Your task to perform on an android device: Search for Mexican restaurants on Maps Image 0: 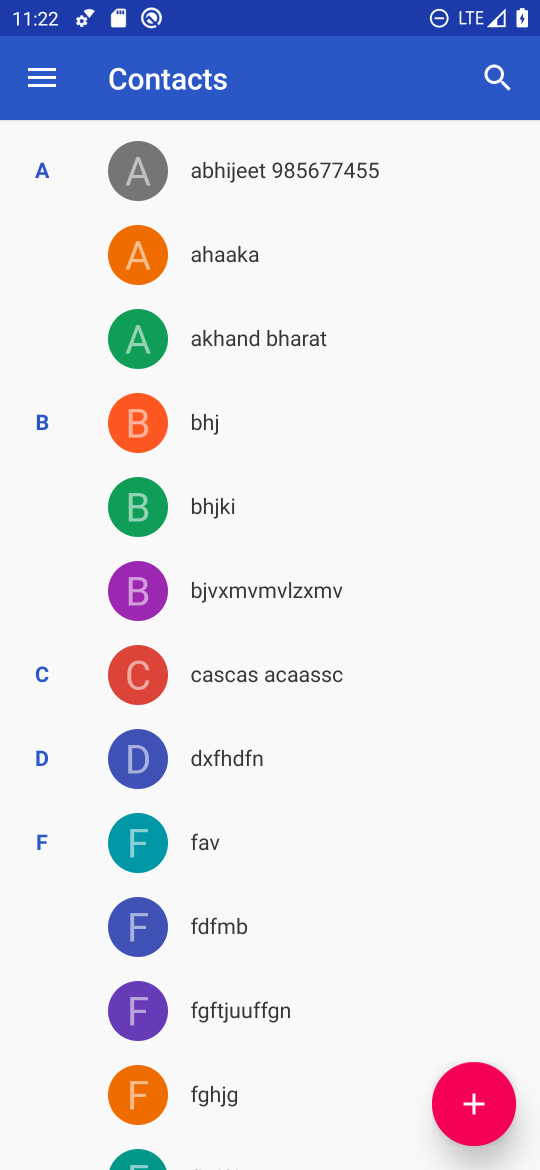
Step 0: press home button
Your task to perform on an android device: Search for Mexican restaurants on Maps Image 1: 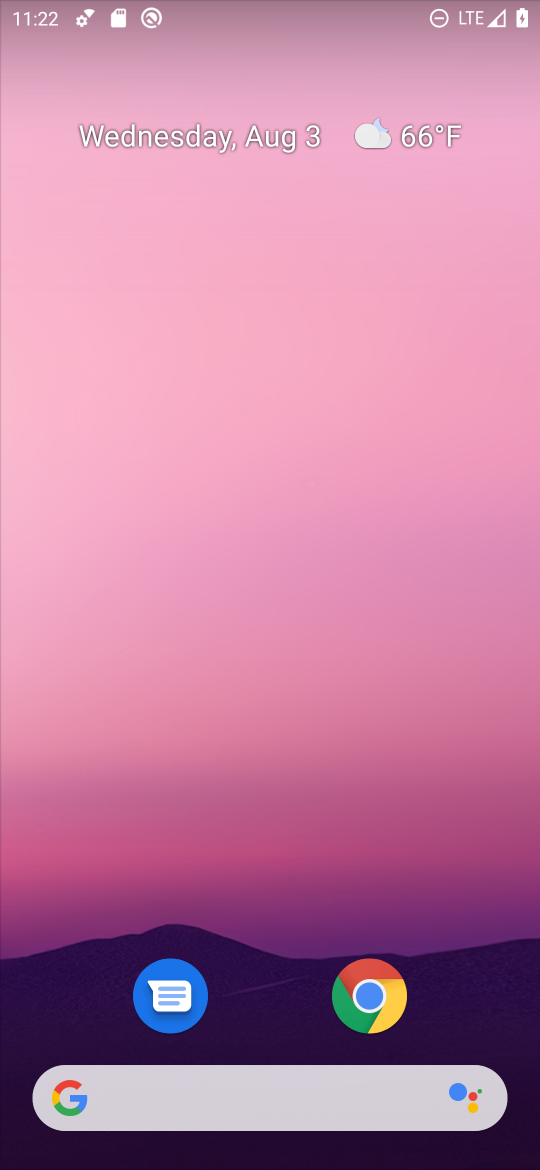
Step 1: drag from (224, 894) to (286, 19)
Your task to perform on an android device: Search for Mexican restaurants on Maps Image 2: 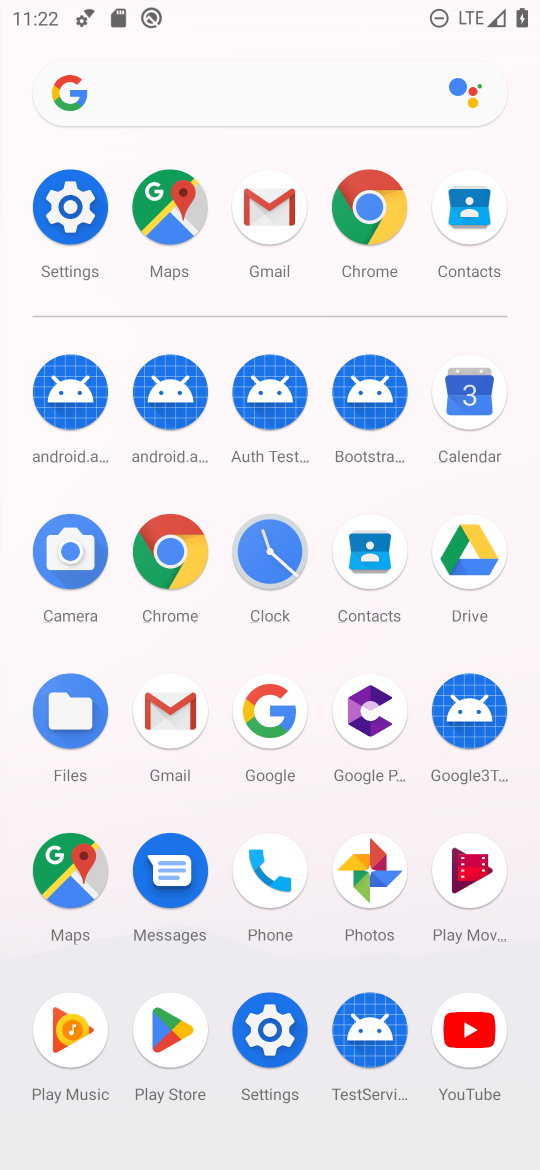
Step 2: click (176, 221)
Your task to perform on an android device: Search for Mexican restaurants on Maps Image 3: 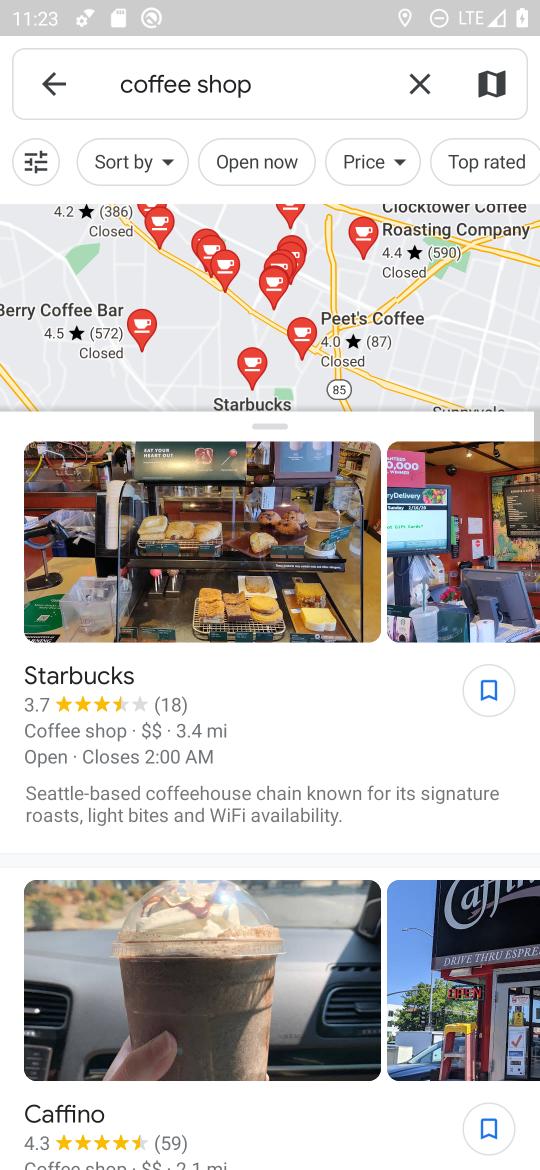
Step 3: click (410, 75)
Your task to perform on an android device: Search for Mexican restaurants on Maps Image 4: 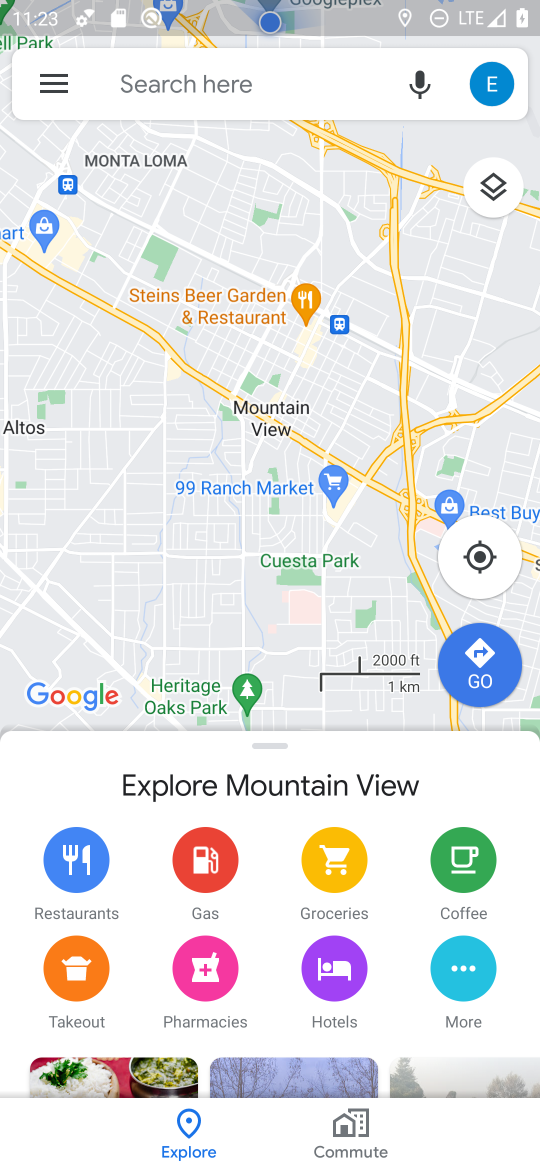
Step 4: click (324, 72)
Your task to perform on an android device: Search for Mexican restaurants on Maps Image 5: 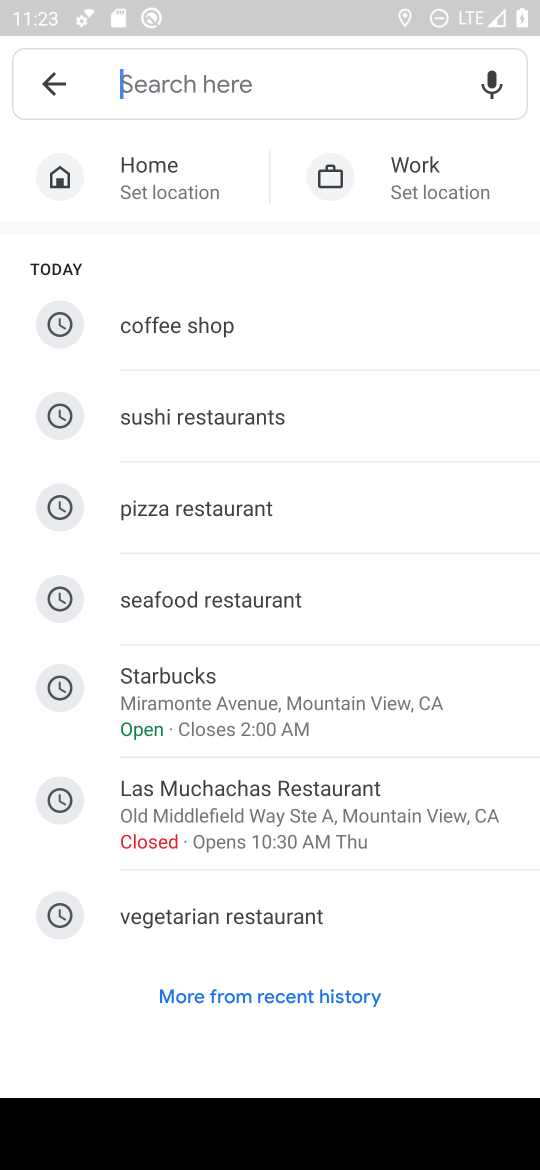
Step 5: type "mexican restaurants"
Your task to perform on an android device: Search for Mexican restaurants on Maps Image 6: 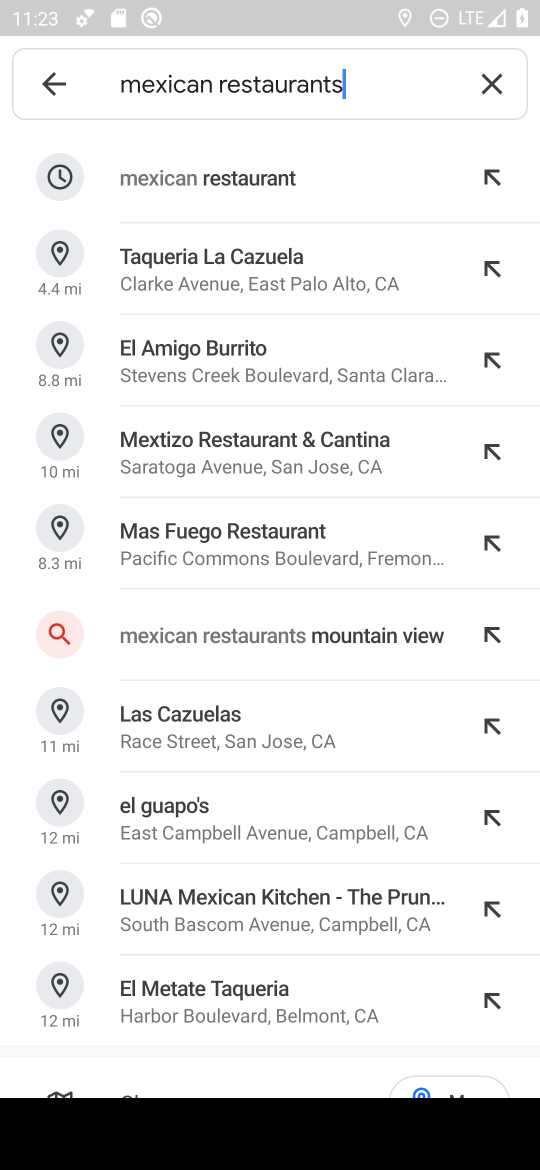
Step 6: click (259, 171)
Your task to perform on an android device: Search for Mexican restaurants on Maps Image 7: 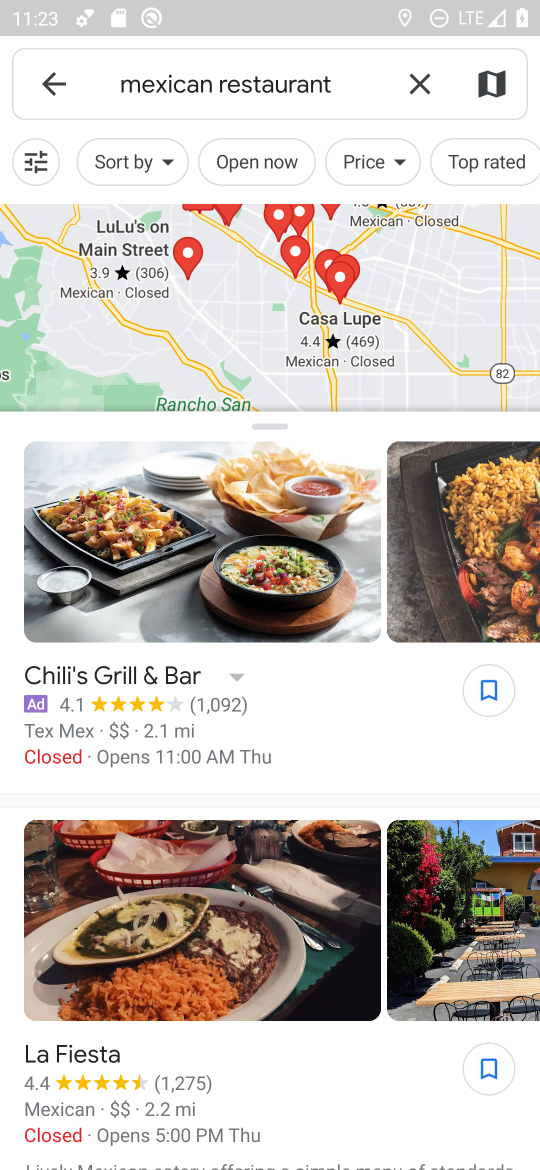
Step 7: task complete